Your task to perform on an android device: open a new tab in the chrome app Image 0: 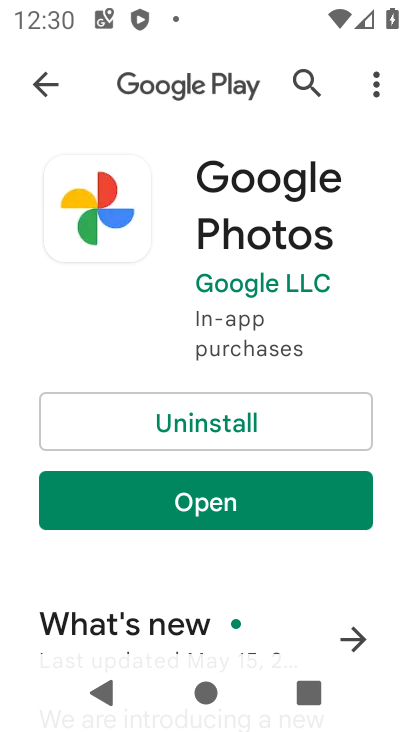
Step 0: press back button
Your task to perform on an android device: open a new tab in the chrome app Image 1: 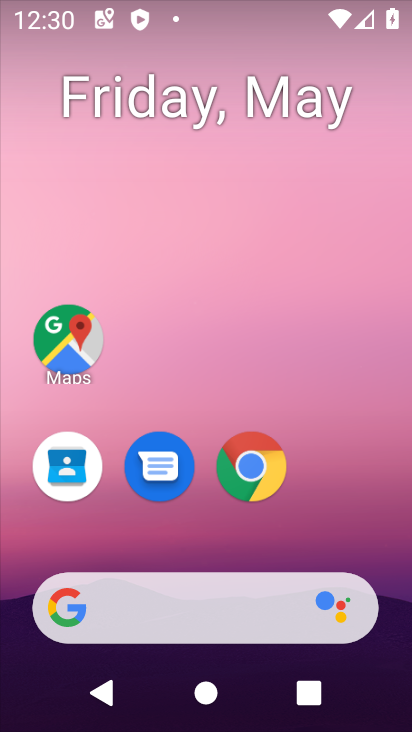
Step 1: click (242, 494)
Your task to perform on an android device: open a new tab in the chrome app Image 2: 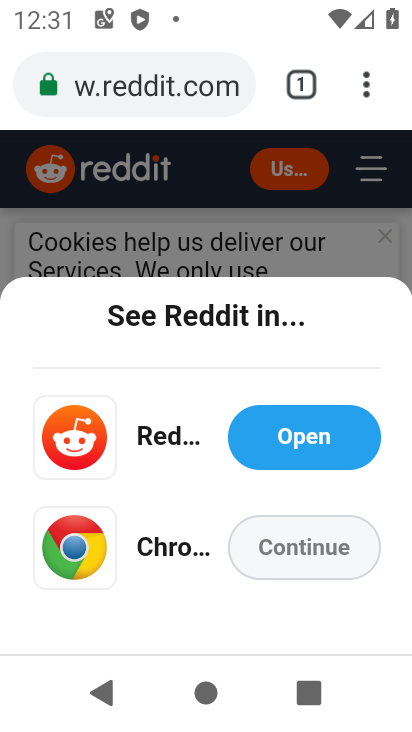
Step 2: click (272, 556)
Your task to perform on an android device: open a new tab in the chrome app Image 3: 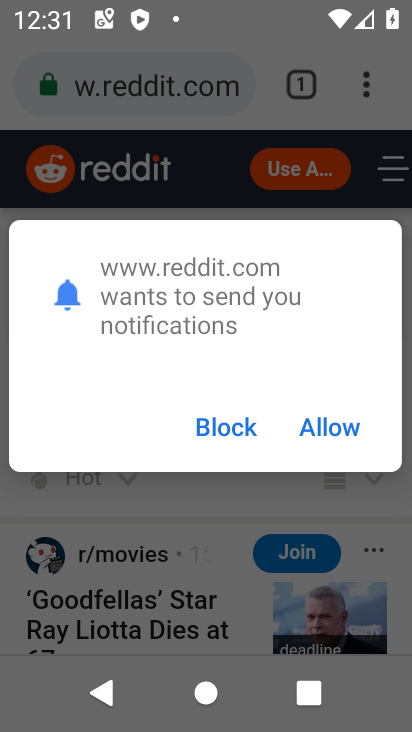
Step 3: click (245, 424)
Your task to perform on an android device: open a new tab in the chrome app Image 4: 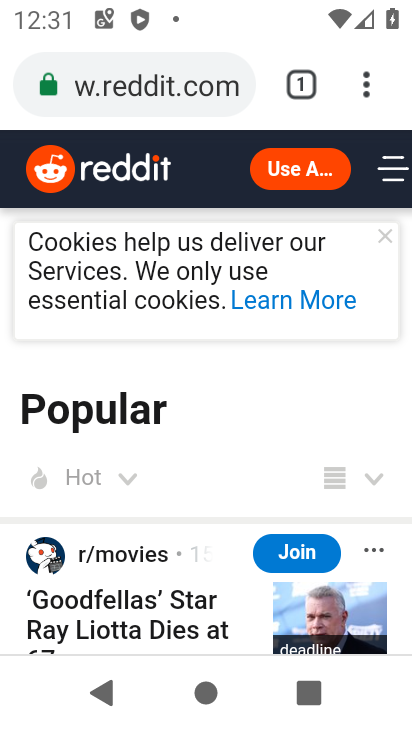
Step 4: click (369, 92)
Your task to perform on an android device: open a new tab in the chrome app Image 5: 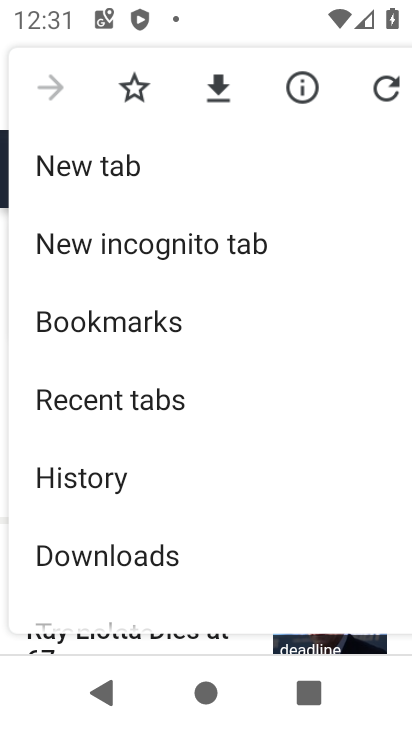
Step 5: click (94, 174)
Your task to perform on an android device: open a new tab in the chrome app Image 6: 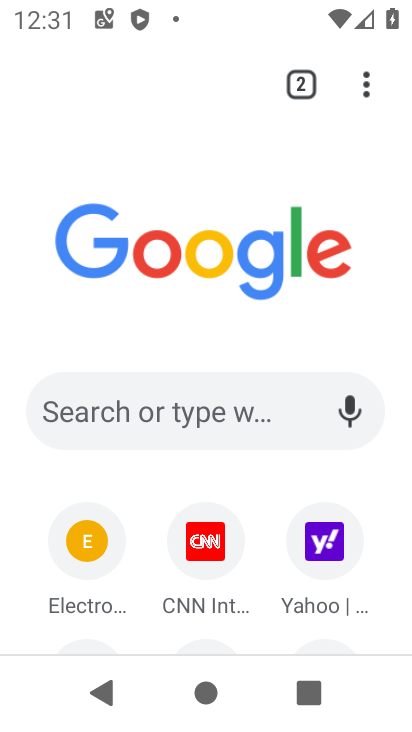
Step 6: task complete